Your task to perform on an android device: set the stopwatch Image 0: 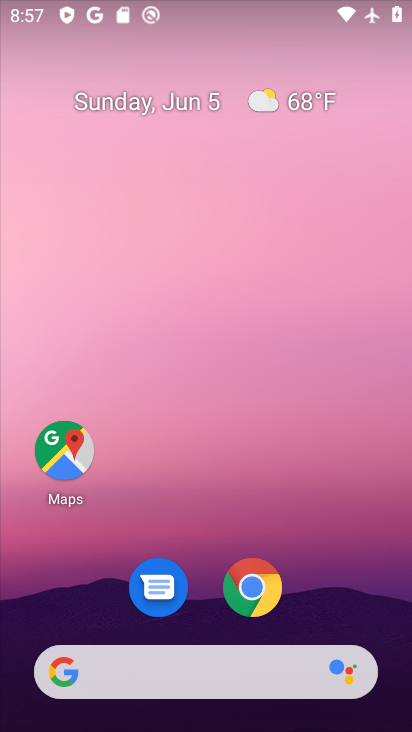
Step 0: drag from (341, 612) to (279, 277)
Your task to perform on an android device: set the stopwatch Image 1: 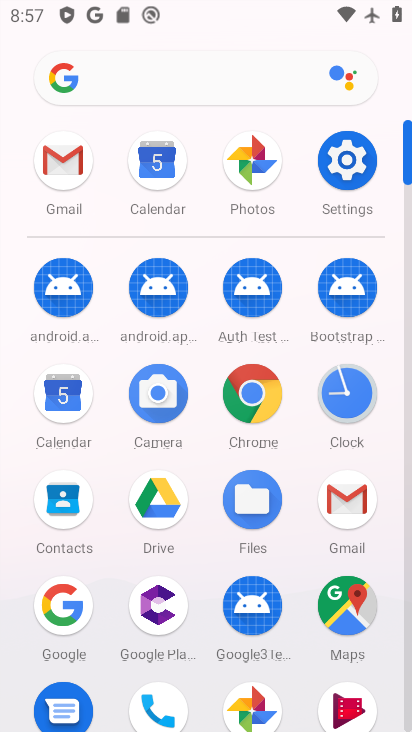
Step 1: click (329, 395)
Your task to perform on an android device: set the stopwatch Image 2: 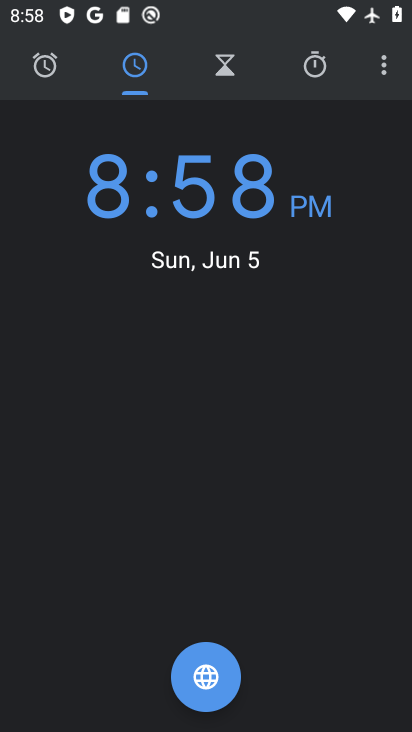
Step 2: click (328, 66)
Your task to perform on an android device: set the stopwatch Image 3: 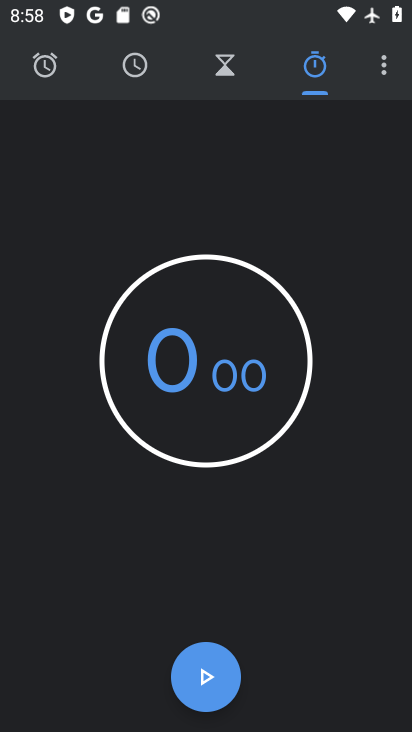
Step 3: click (209, 670)
Your task to perform on an android device: set the stopwatch Image 4: 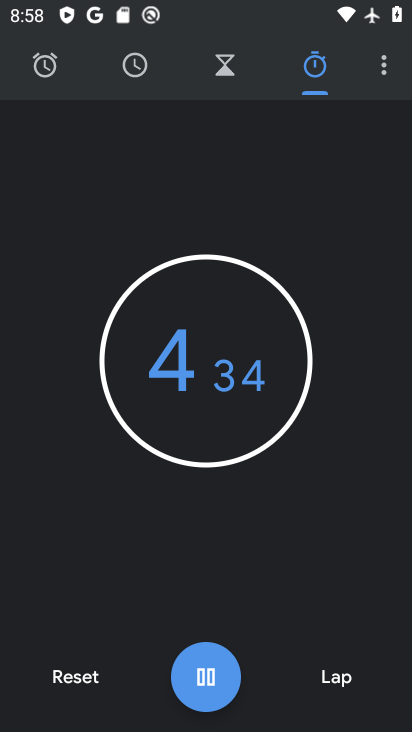
Step 4: task complete